Your task to perform on an android device: Open Yahoo.com Image 0: 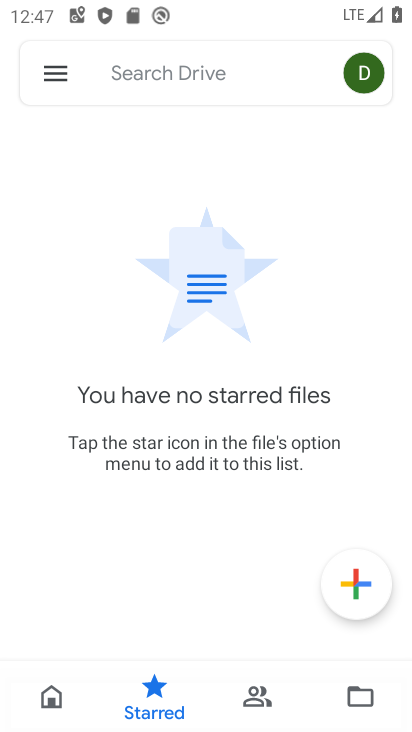
Step 0: press home button
Your task to perform on an android device: Open Yahoo.com Image 1: 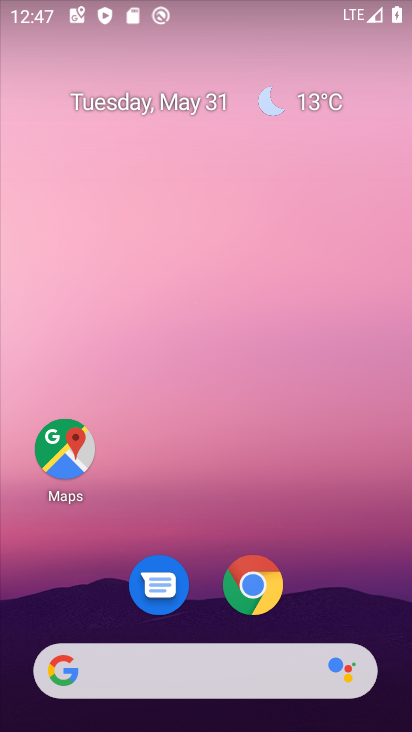
Step 1: click (259, 673)
Your task to perform on an android device: Open Yahoo.com Image 2: 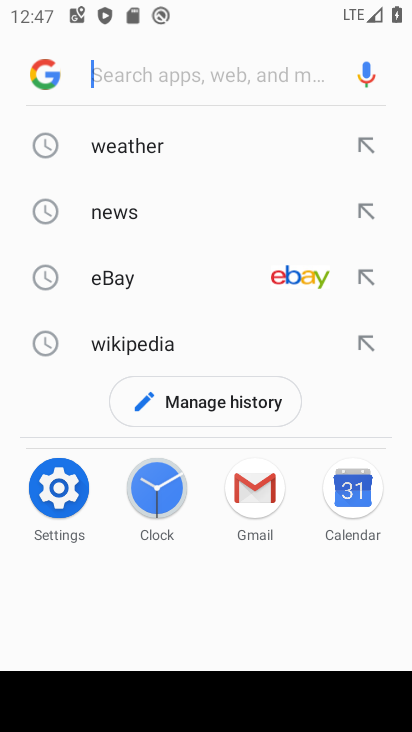
Step 2: type "yahoo.com"
Your task to perform on an android device: Open Yahoo.com Image 3: 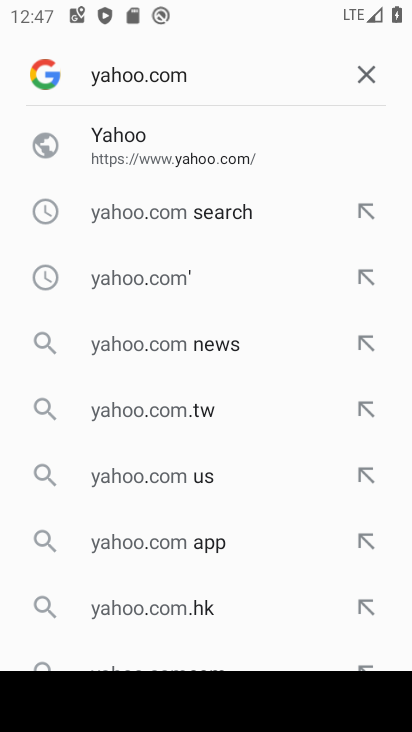
Step 3: click (119, 135)
Your task to perform on an android device: Open Yahoo.com Image 4: 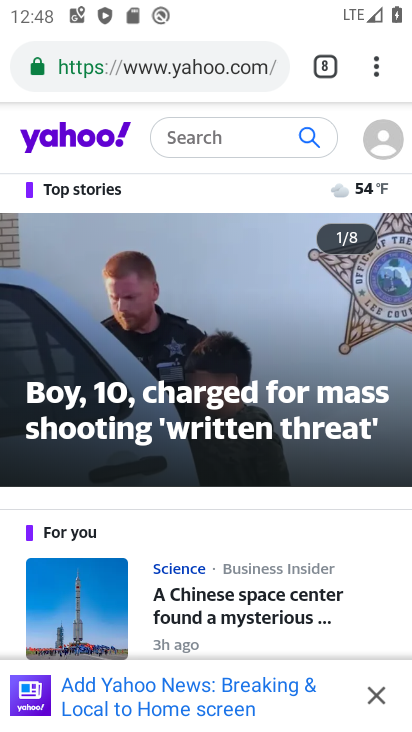
Step 4: task complete